Your task to perform on an android device: Show me the alarms in the clock app Image 0: 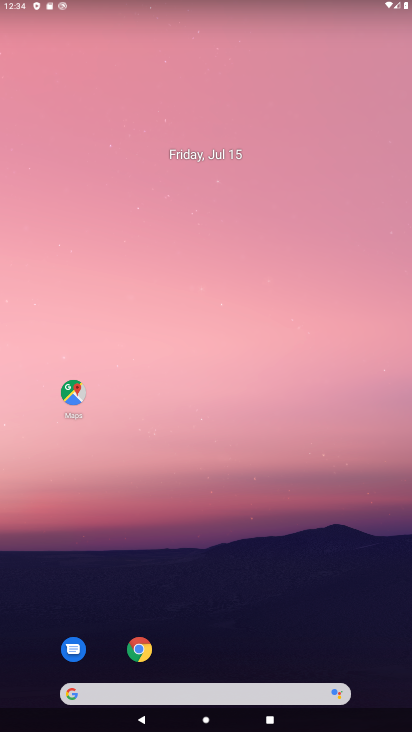
Step 0: drag from (224, 630) to (238, 278)
Your task to perform on an android device: Show me the alarms in the clock app Image 1: 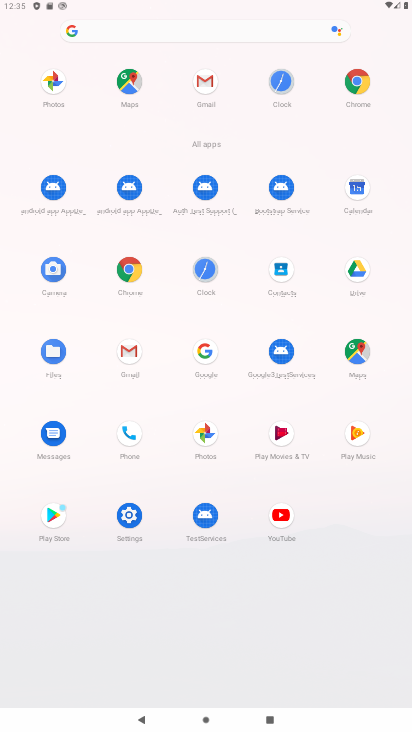
Step 1: click (204, 271)
Your task to perform on an android device: Show me the alarms in the clock app Image 2: 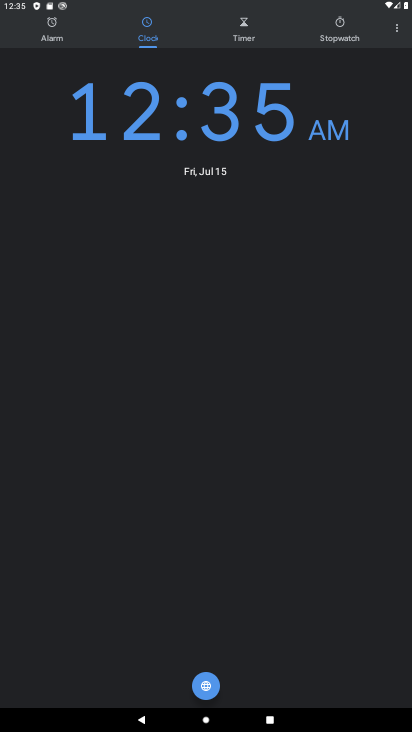
Step 2: click (393, 33)
Your task to perform on an android device: Show me the alarms in the clock app Image 3: 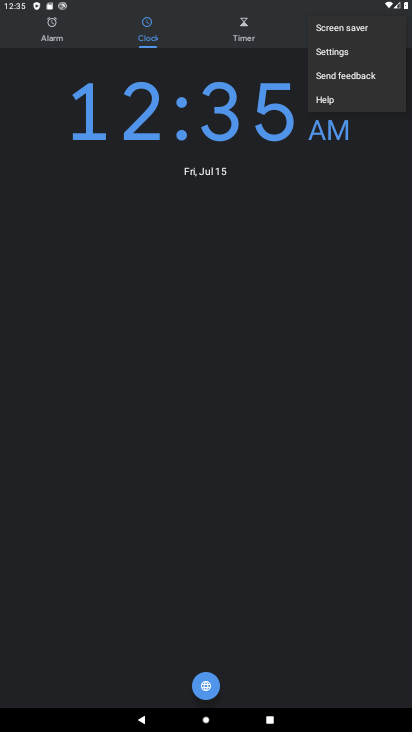
Step 3: click (46, 23)
Your task to perform on an android device: Show me the alarms in the clock app Image 4: 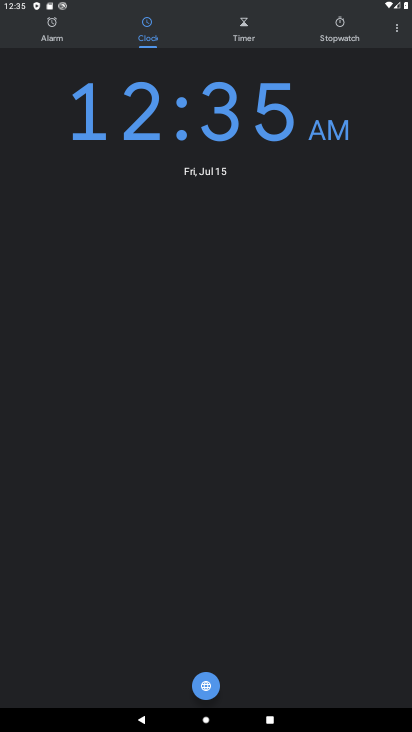
Step 4: click (46, 23)
Your task to perform on an android device: Show me the alarms in the clock app Image 5: 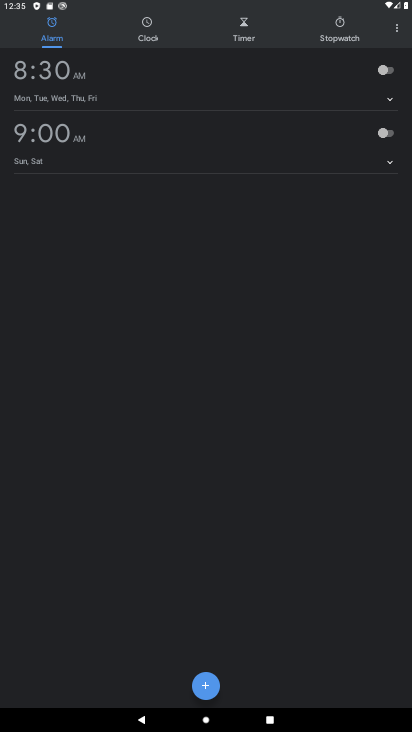
Step 5: task complete